Your task to perform on an android device: turn off data saver in the chrome app Image 0: 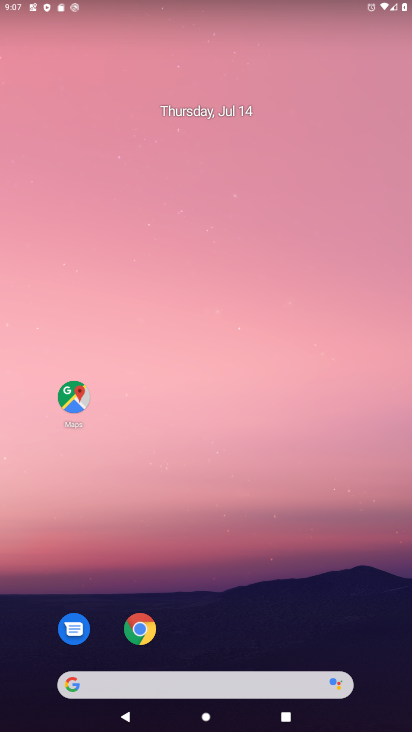
Step 0: click (146, 629)
Your task to perform on an android device: turn off data saver in the chrome app Image 1: 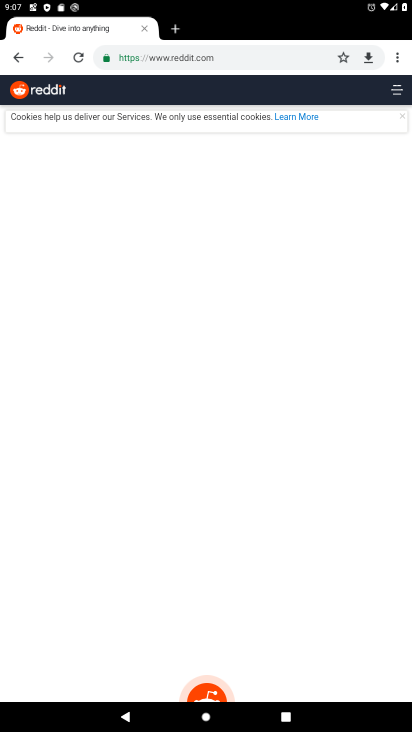
Step 1: click (399, 54)
Your task to perform on an android device: turn off data saver in the chrome app Image 2: 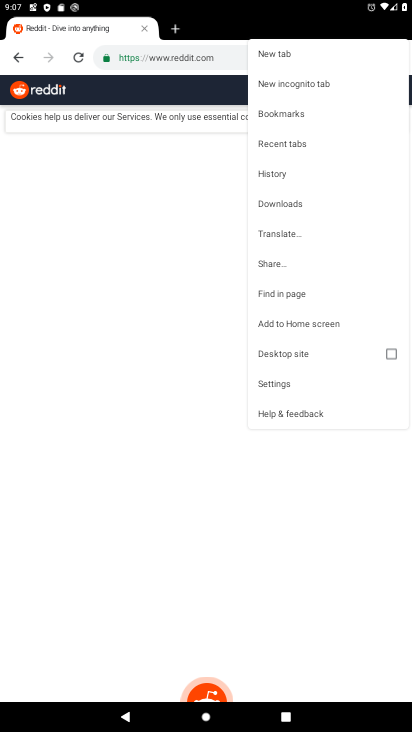
Step 2: click (277, 378)
Your task to perform on an android device: turn off data saver in the chrome app Image 3: 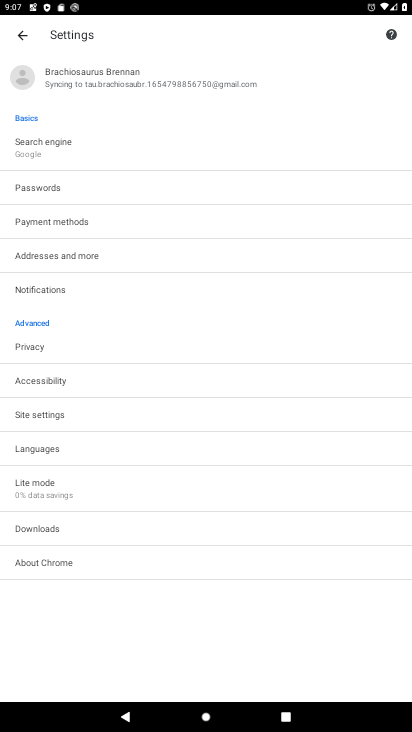
Step 3: click (76, 486)
Your task to perform on an android device: turn off data saver in the chrome app Image 4: 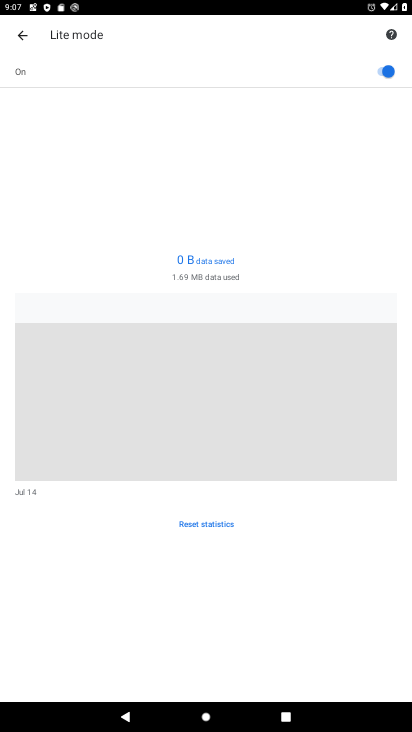
Step 4: click (386, 67)
Your task to perform on an android device: turn off data saver in the chrome app Image 5: 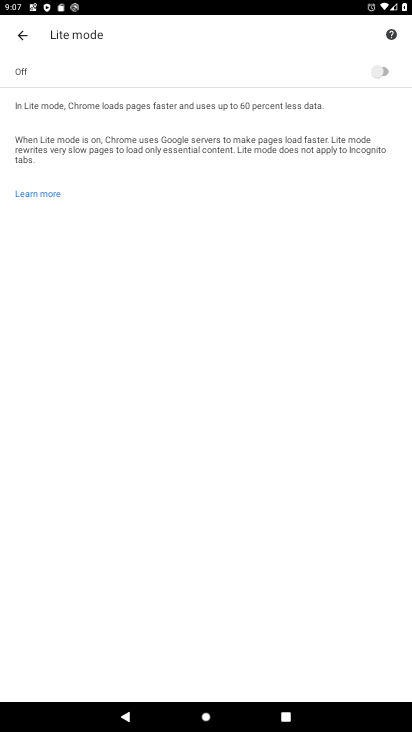
Step 5: task complete